Your task to perform on an android device: open the mobile data screen to see how much data has been used Image 0: 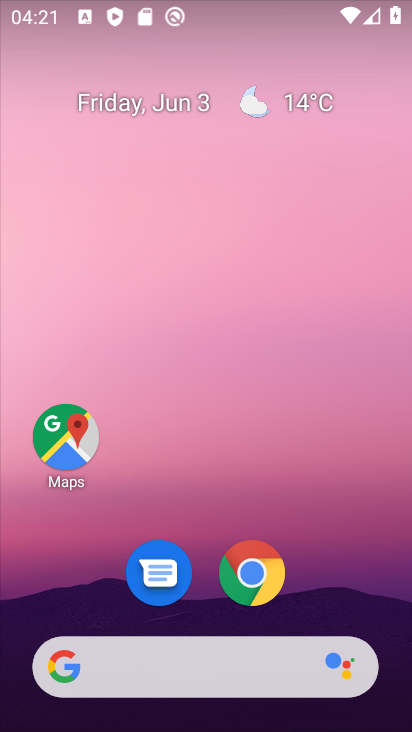
Step 0: drag from (332, 531) to (321, 7)
Your task to perform on an android device: open the mobile data screen to see how much data has been used Image 1: 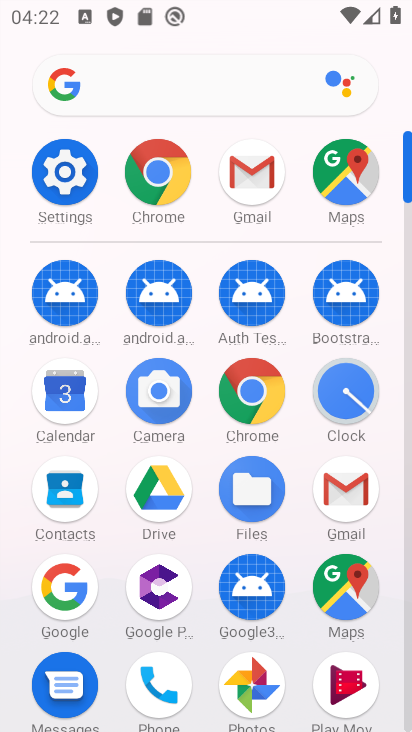
Step 1: click (81, 142)
Your task to perform on an android device: open the mobile data screen to see how much data has been used Image 2: 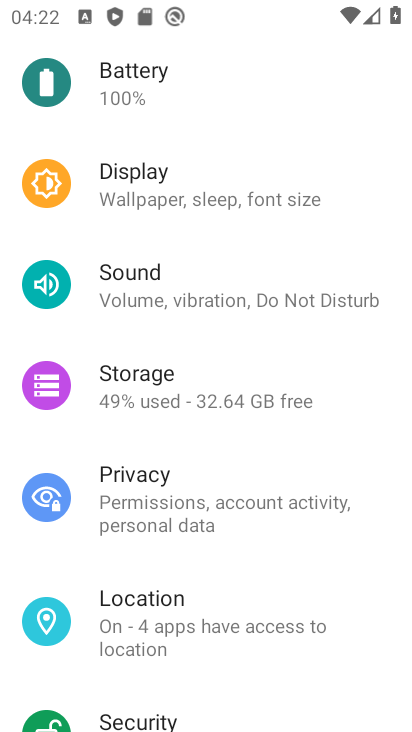
Step 2: drag from (256, 135) to (411, 669)
Your task to perform on an android device: open the mobile data screen to see how much data has been used Image 3: 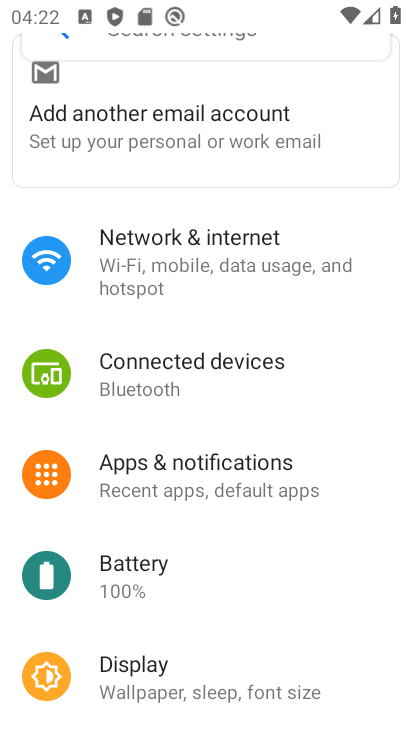
Step 3: click (219, 334)
Your task to perform on an android device: open the mobile data screen to see how much data has been used Image 4: 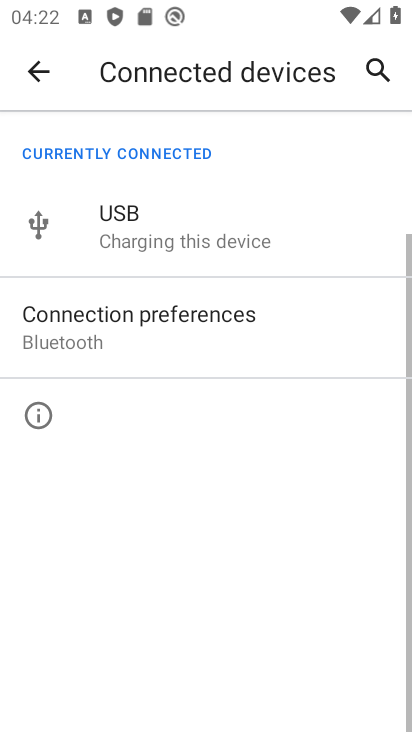
Step 4: press back button
Your task to perform on an android device: open the mobile data screen to see how much data has been used Image 5: 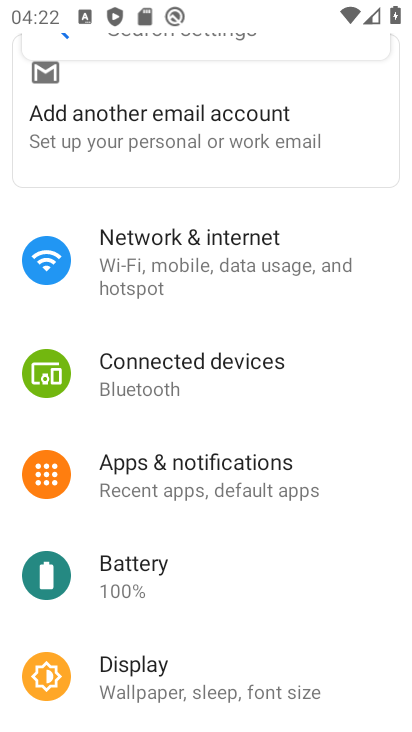
Step 5: click (215, 249)
Your task to perform on an android device: open the mobile data screen to see how much data has been used Image 6: 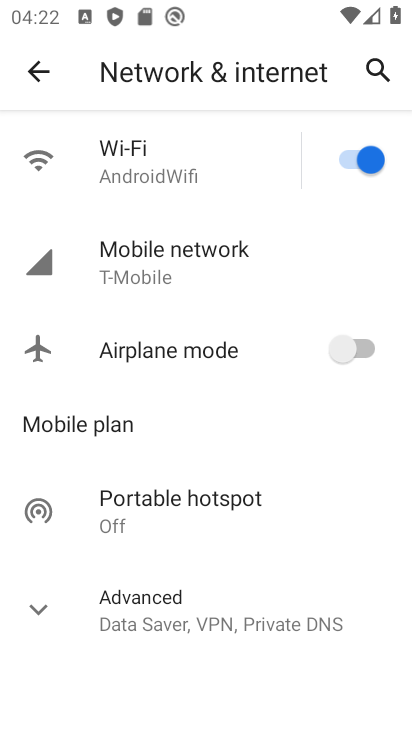
Step 6: click (237, 253)
Your task to perform on an android device: open the mobile data screen to see how much data has been used Image 7: 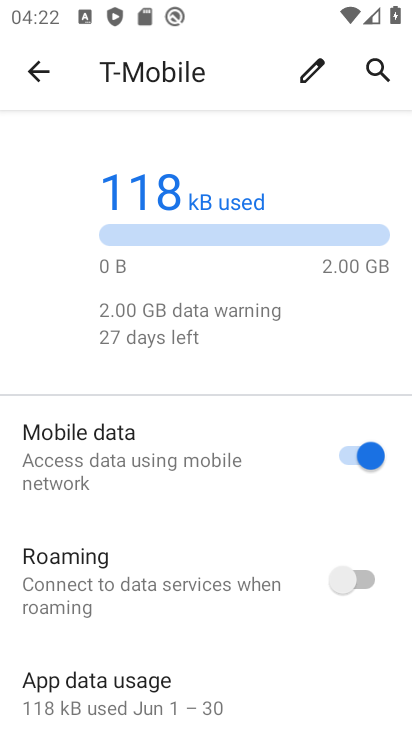
Step 7: drag from (213, 648) to (195, 202)
Your task to perform on an android device: open the mobile data screen to see how much data has been used Image 8: 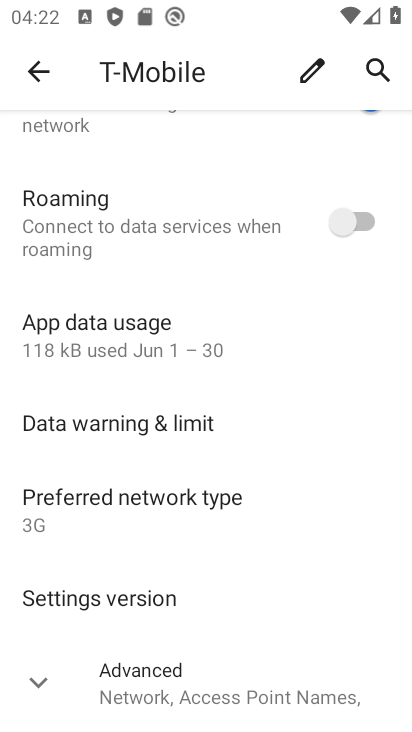
Step 8: click (184, 341)
Your task to perform on an android device: open the mobile data screen to see how much data has been used Image 9: 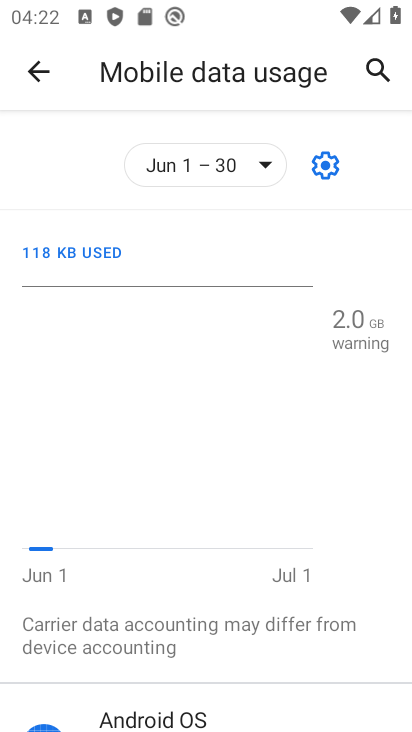
Step 9: task complete